Your task to perform on an android device: turn off improve location accuracy Image 0: 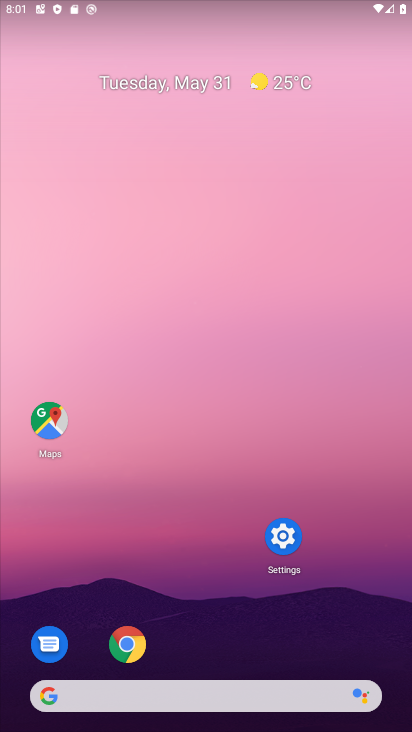
Step 0: task complete